Your task to perform on an android device: check out phone information Image 0: 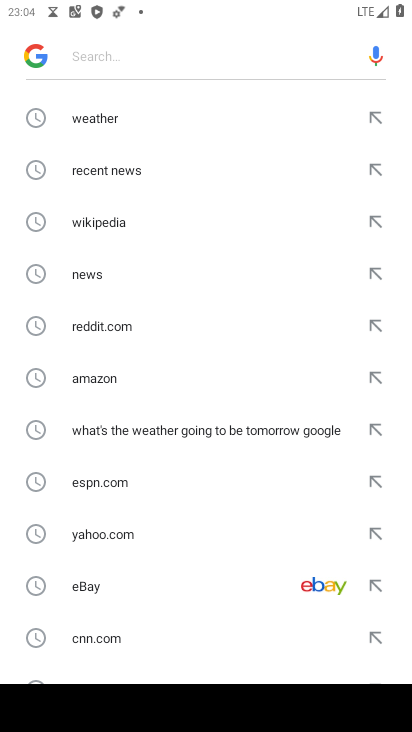
Step 0: press back button
Your task to perform on an android device: check out phone information Image 1: 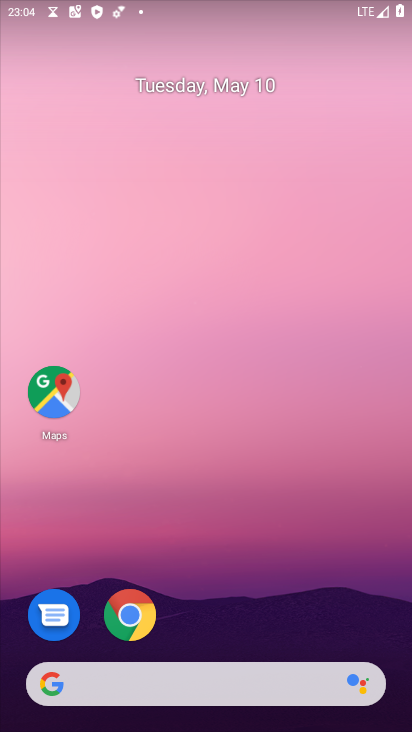
Step 1: drag from (224, 597) to (224, 157)
Your task to perform on an android device: check out phone information Image 2: 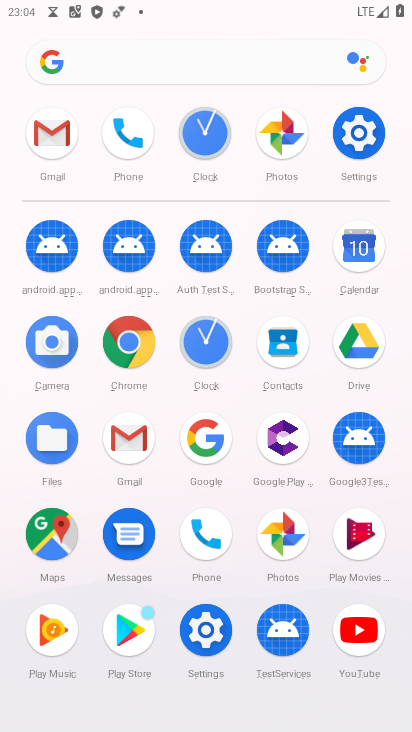
Step 2: click (358, 136)
Your task to perform on an android device: check out phone information Image 3: 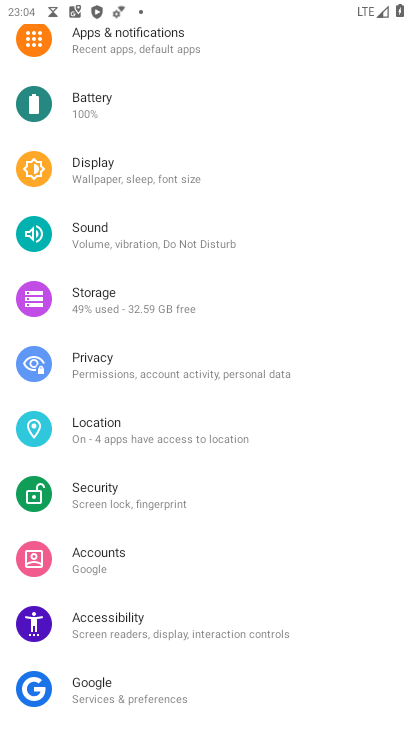
Step 3: drag from (212, 673) to (283, 479)
Your task to perform on an android device: check out phone information Image 4: 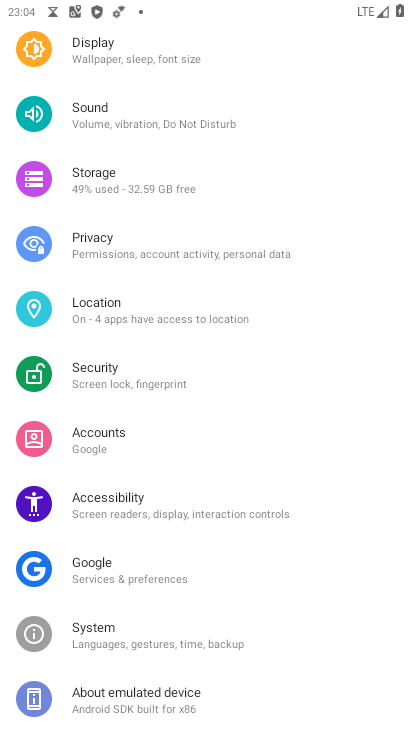
Step 4: click (103, 682)
Your task to perform on an android device: check out phone information Image 5: 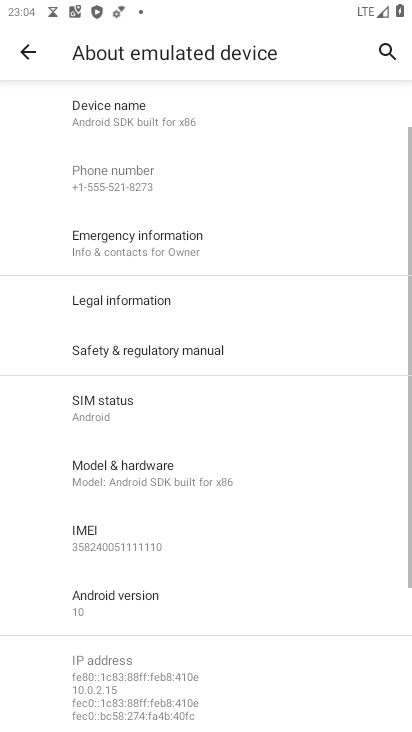
Step 5: task complete